Your task to perform on an android device: check out phone information Image 0: 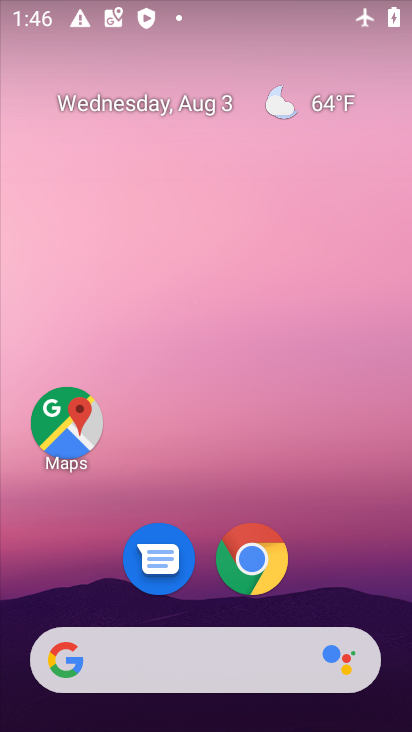
Step 0: drag from (201, 567) to (200, 97)
Your task to perform on an android device: check out phone information Image 1: 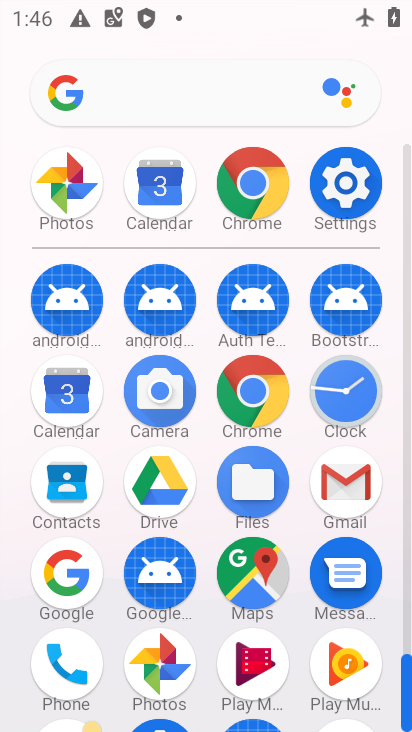
Step 1: click (343, 192)
Your task to perform on an android device: check out phone information Image 2: 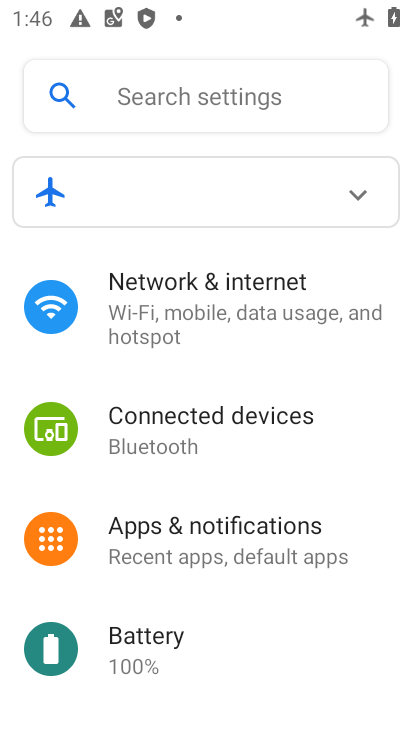
Step 2: drag from (179, 691) to (161, 294)
Your task to perform on an android device: check out phone information Image 3: 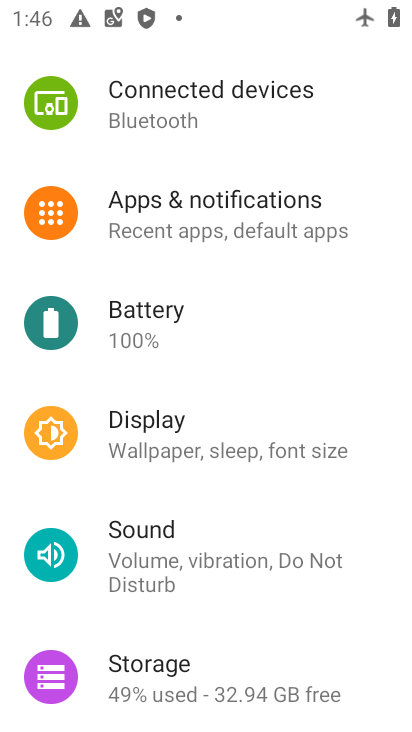
Step 3: drag from (192, 688) to (180, 289)
Your task to perform on an android device: check out phone information Image 4: 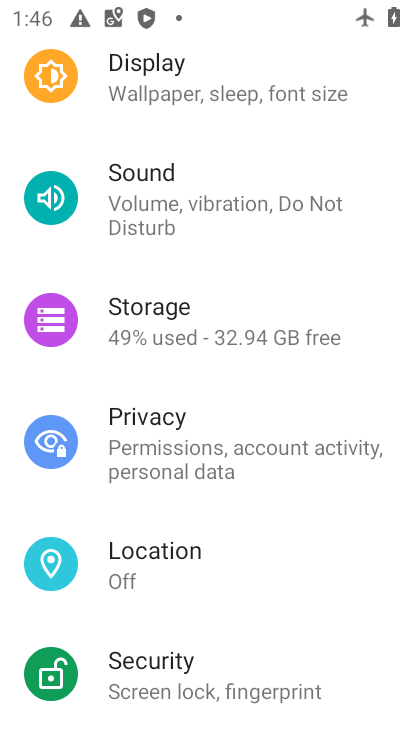
Step 4: drag from (209, 666) to (209, 362)
Your task to perform on an android device: check out phone information Image 5: 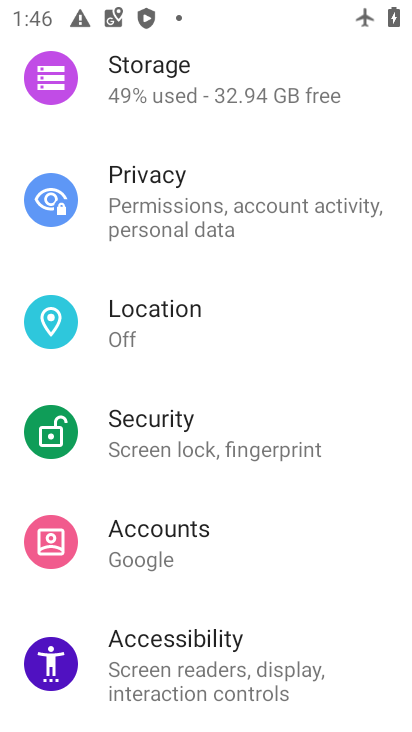
Step 5: drag from (242, 664) to (220, 306)
Your task to perform on an android device: check out phone information Image 6: 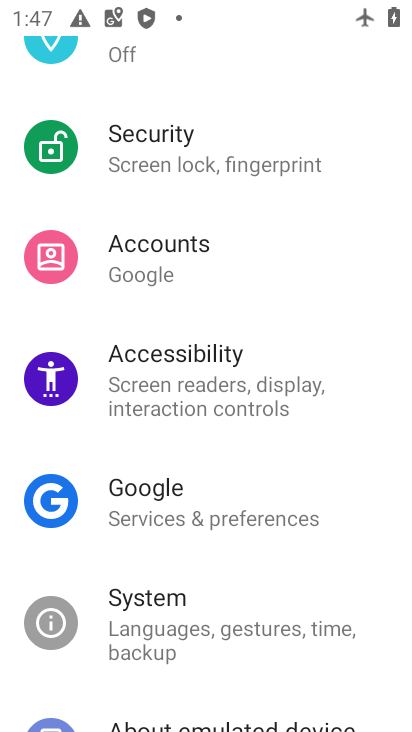
Step 6: drag from (166, 702) to (153, 299)
Your task to perform on an android device: check out phone information Image 7: 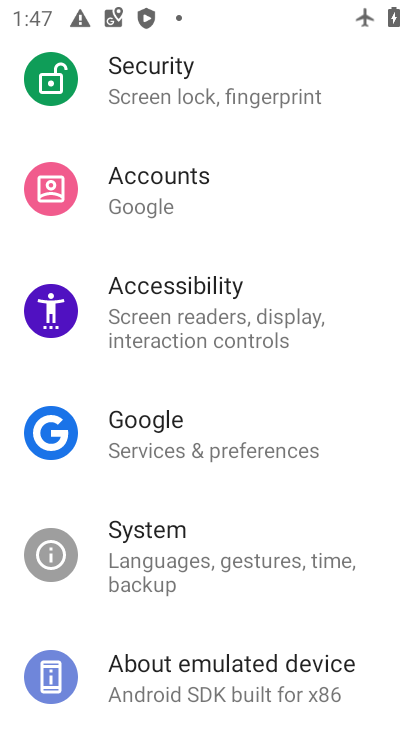
Step 7: click (191, 686)
Your task to perform on an android device: check out phone information Image 8: 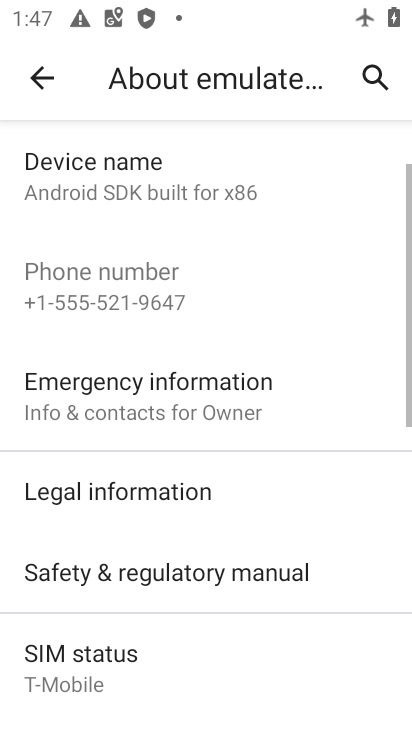
Step 8: task complete